Your task to perform on an android device: empty trash in google photos Image 0: 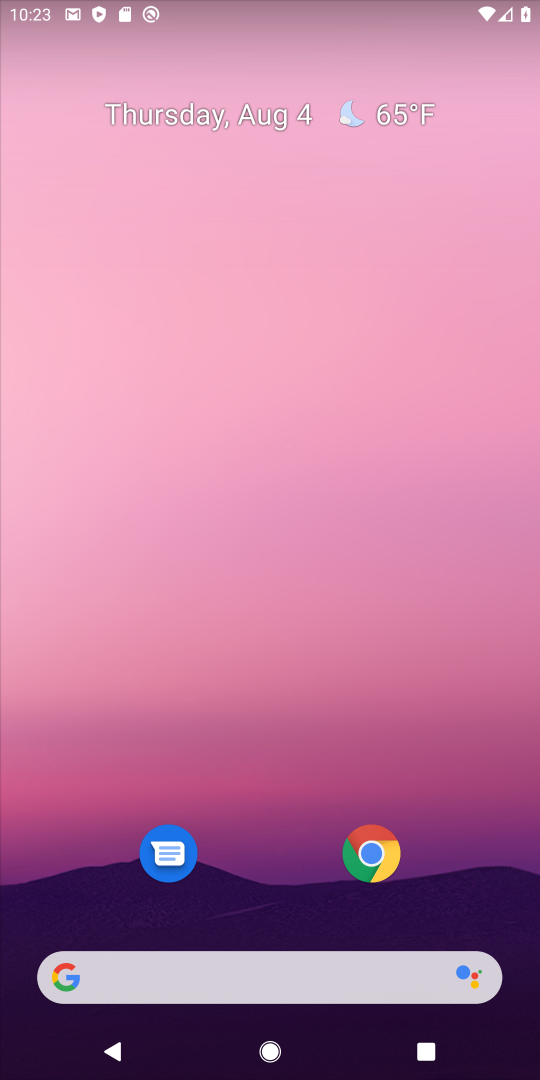
Step 0: drag from (261, 909) to (279, 65)
Your task to perform on an android device: empty trash in google photos Image 1: 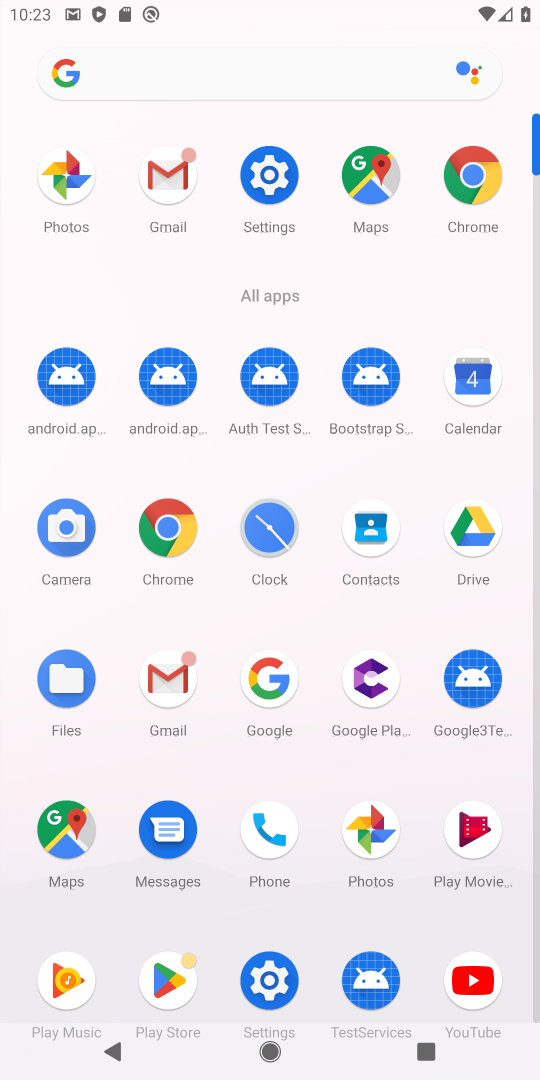
Step 1: click (367, 831)
Your task to perform on an android device: empty trash in google photos Image 2: 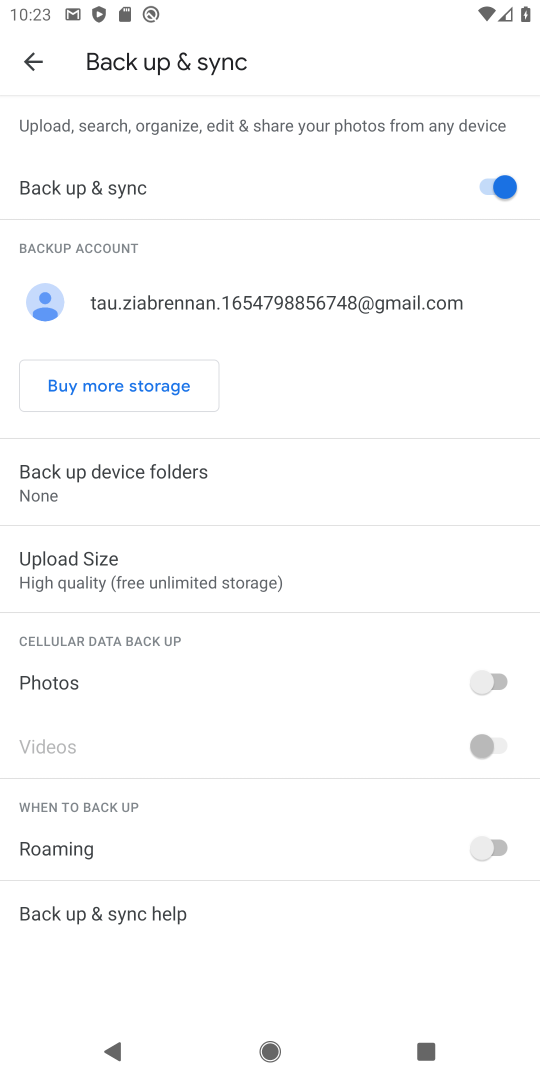
Step 2: click (45, 58)
Your task to perform on an android device: empty trash in google photos Image 3: 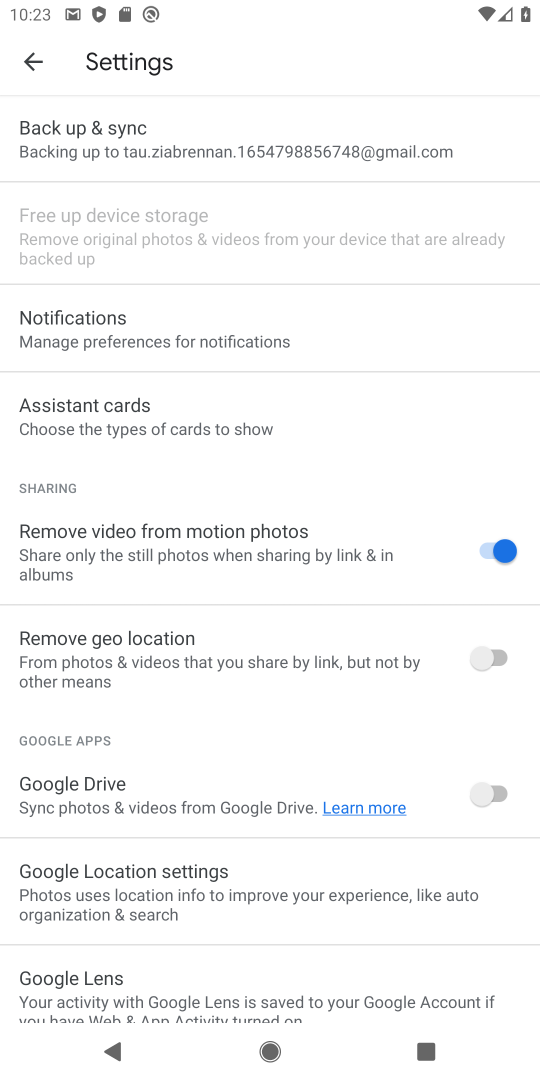
Step 3: click (4, 65)
Your task to perform on an android device: empty trash in google photos Image 4: 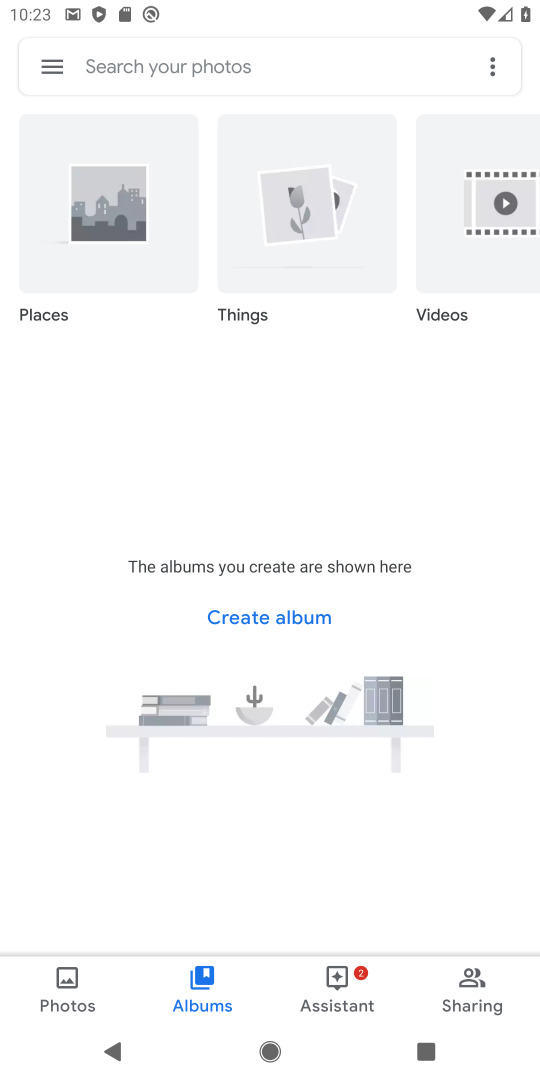
Step 4: drag from (35, 62) to (47, 175)
Your task to perform on an android device: empty trash in google photos Image 5: 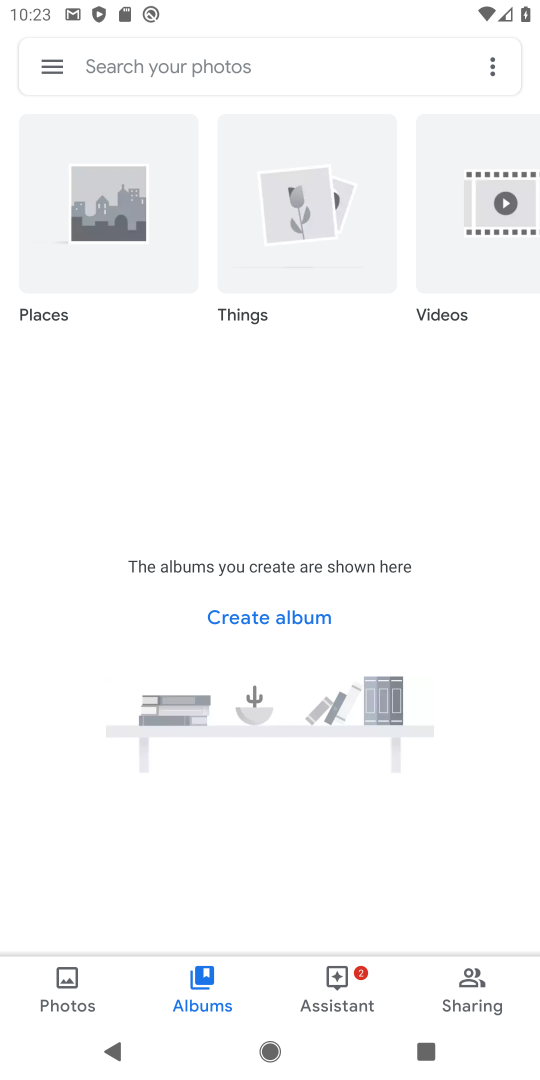
Step 5: click (57, 70)
Your task to perform on an android device: empty trash in google photos Image 6: 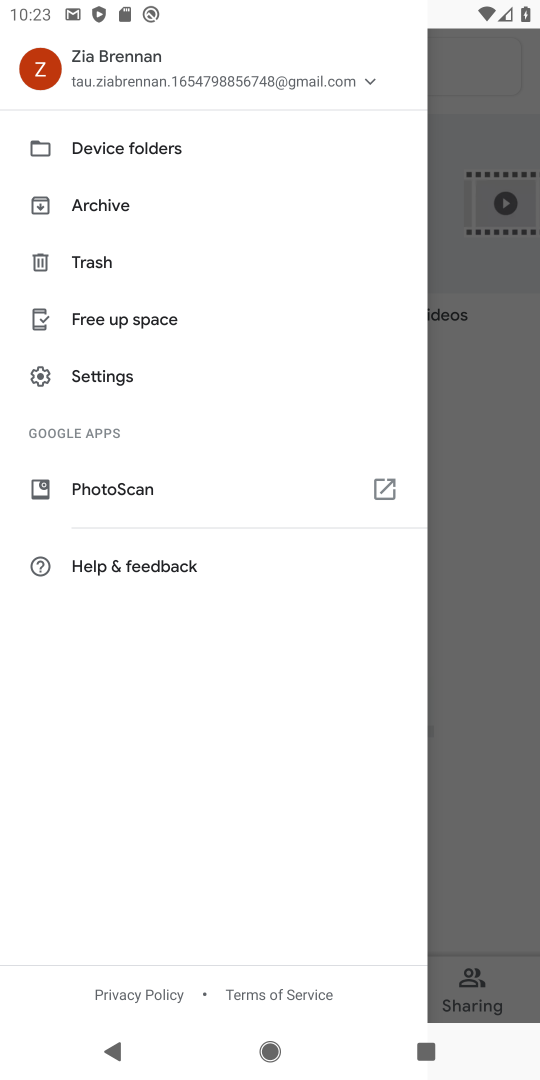
Step 6: click (67, 249)
Your task to perform on an android device: empty trash in google photos Image 7: 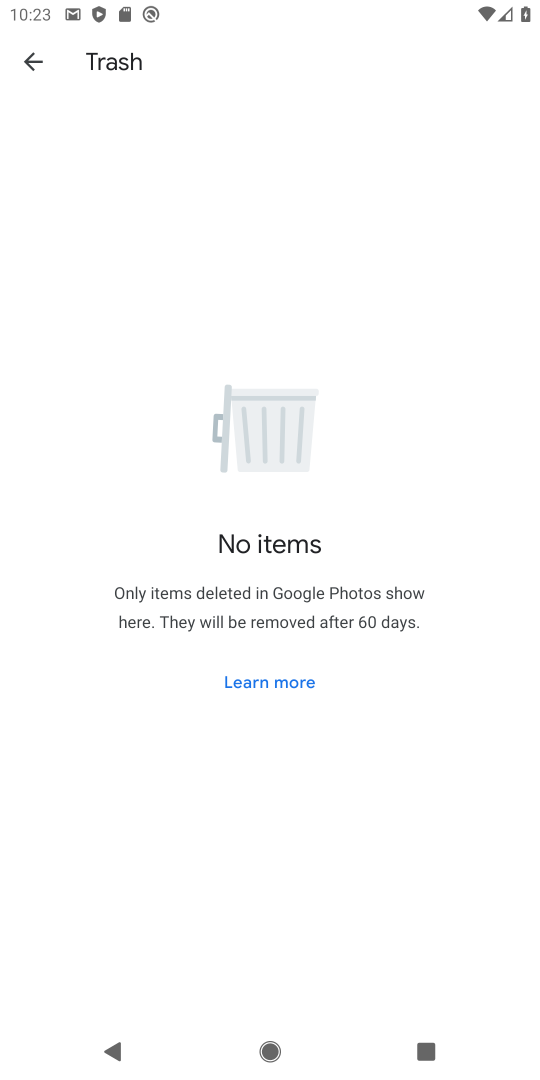
Step 7: task complete